Your task to perform on an android device: find snoozed emails in the gmail app Image 0: 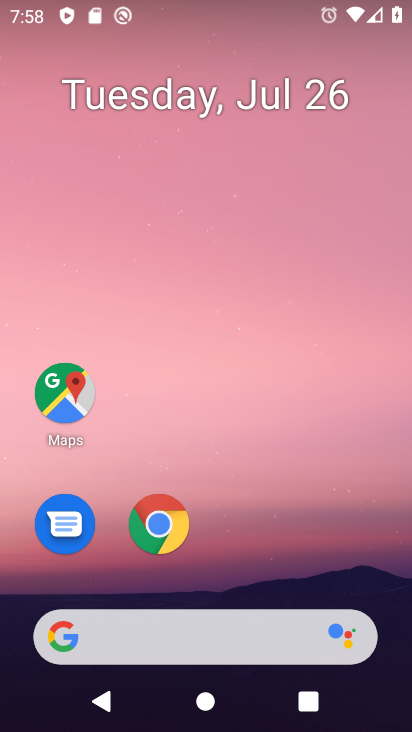
Step 0: drag from (266, 554) to (221, 56)
Your task to perform on an android device: find snoozed emails in the gmail app Image 1: 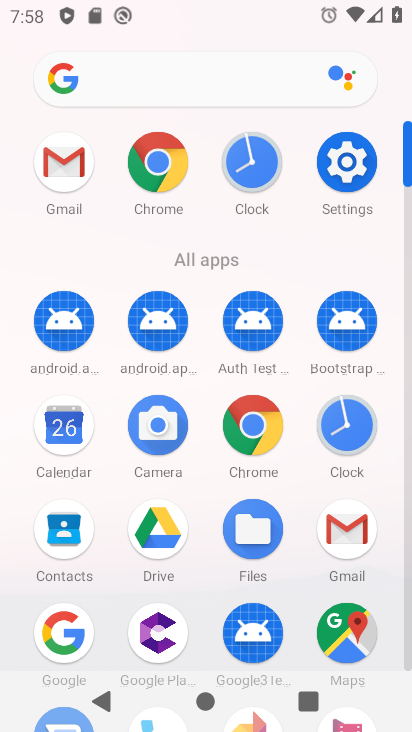
Step 1: click (69, 153)
Your task to perform on an android device: find snoozed emails in the gmail app Image 2: 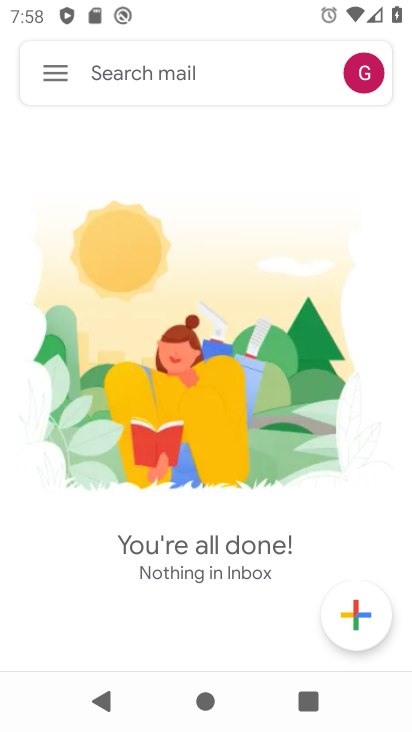
Step 2: click (61, 79)
Your task to perform on an android device: find snoozed emails in the gmail app Image 3: 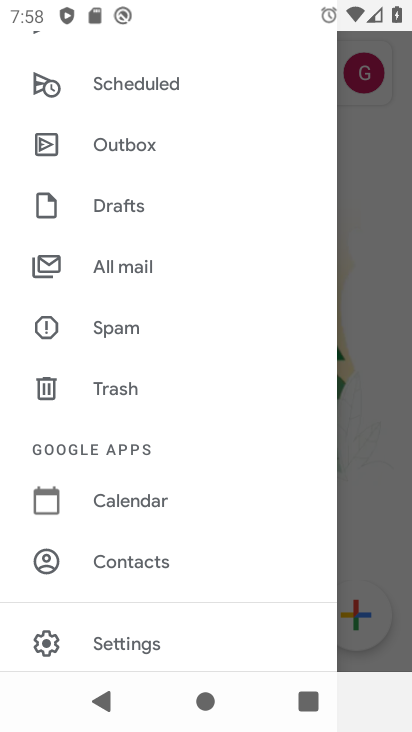
Step 3: drag from (179, 223) to (164, 581)
Your task to perform on an android device: find snoozed emails in the gmail app Image 4: 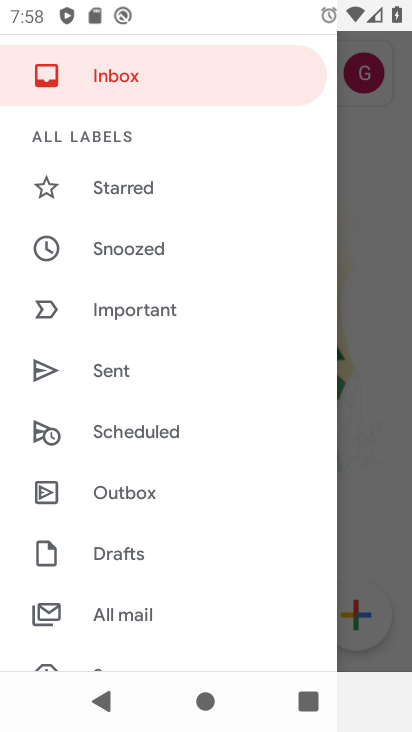
Step 4: click (152, 239)
Your task to perform on an android device: find snoozed emails in the gmail app Image 5: 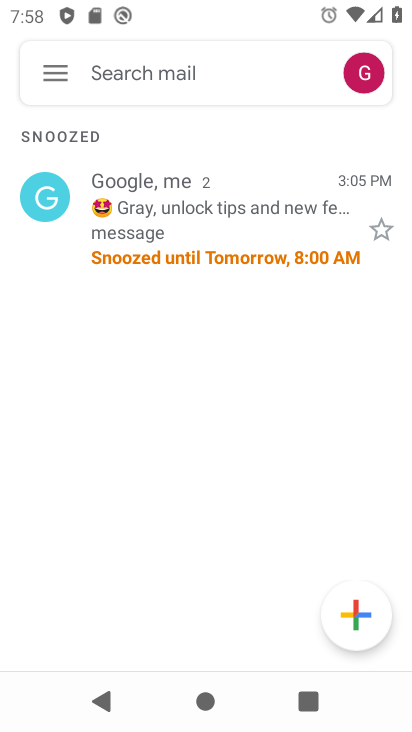
Step 5: task complete